Your task to perform on an android device: open app "Grab" (install if not already installed) and go to login screen Image 0: 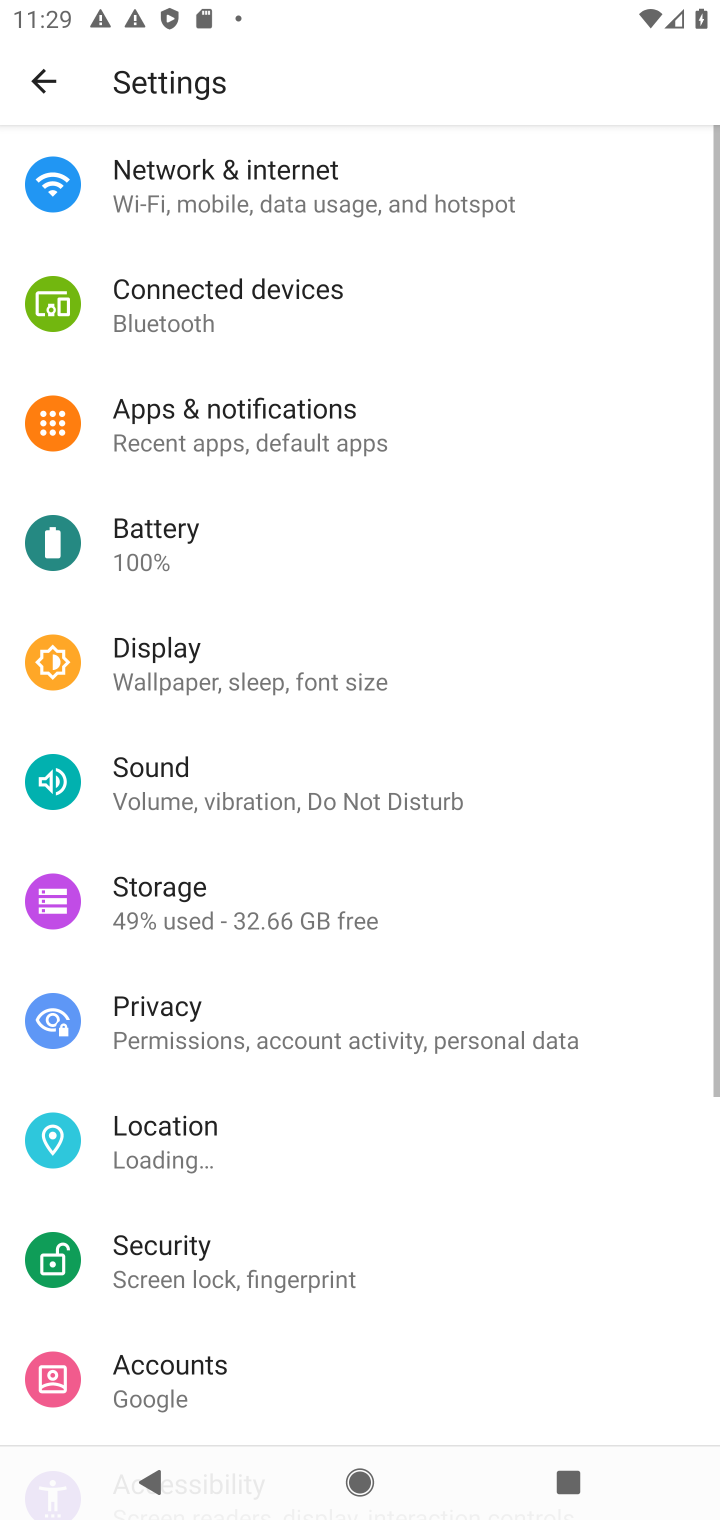
Step 0: press home button
Your task to perform on an android device: open app "Grab" (install if not already installed) and go to login screen Image 1: 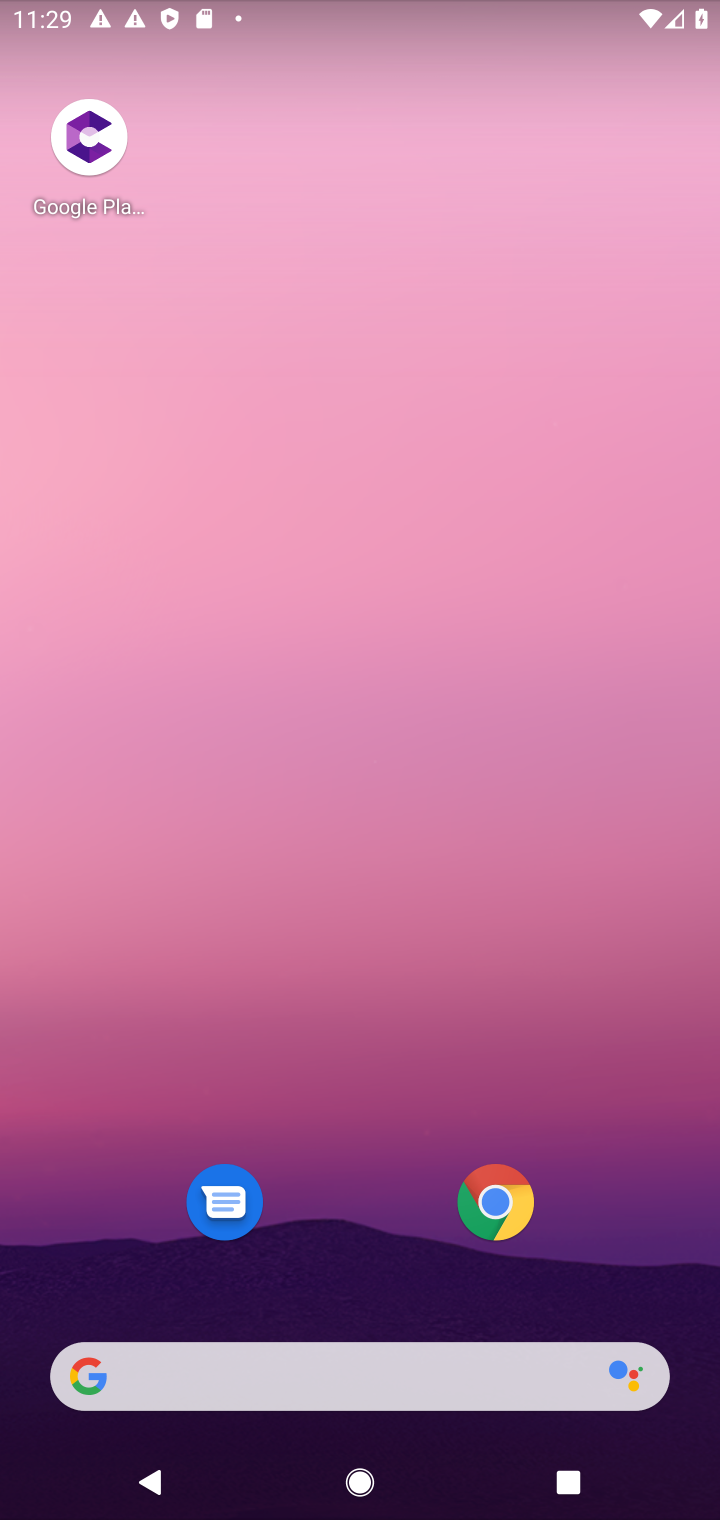
Step 1: drag from (349, 1206) to (199, 210)
Your task to perform on an android device: open app "Grab" (install if not already installed) and go to login screen Image 2: 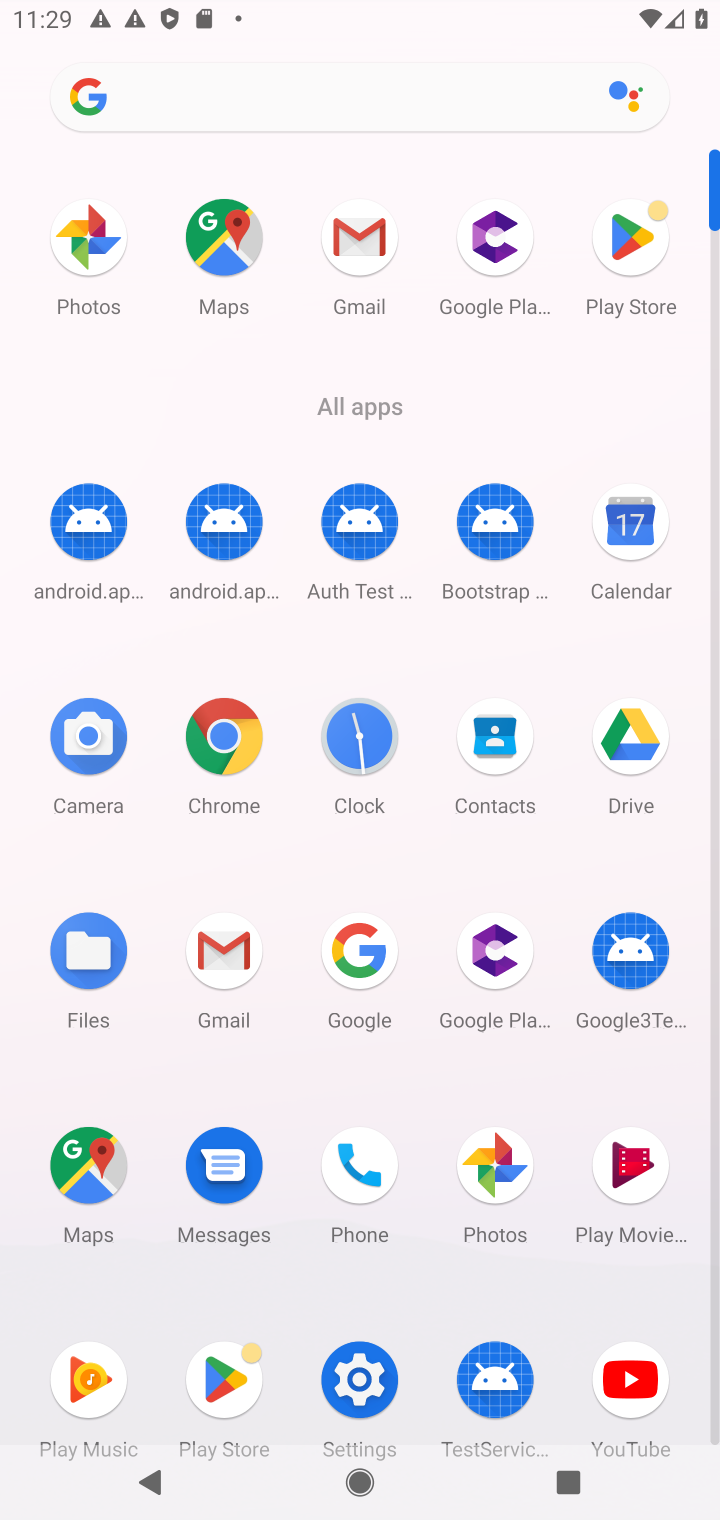
Step 2: click (651, 255)
Your task to perform on an android device: open app "Grab" (install if not already installed) and go to login screen Image 3: 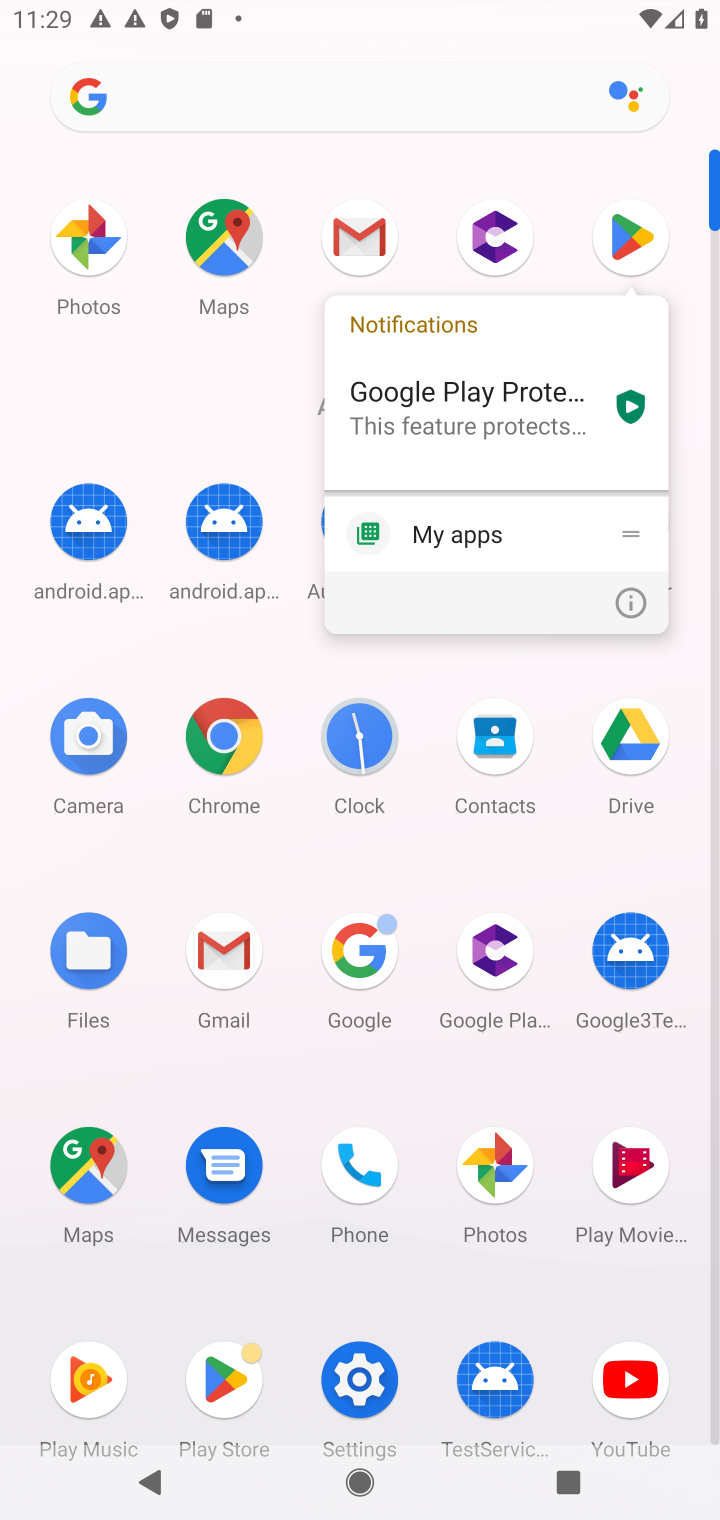
Step 3: click (620, 216)
Your task to perform on an android device: open app "Grab" (install if not already installed) and go to login screen Image 4: 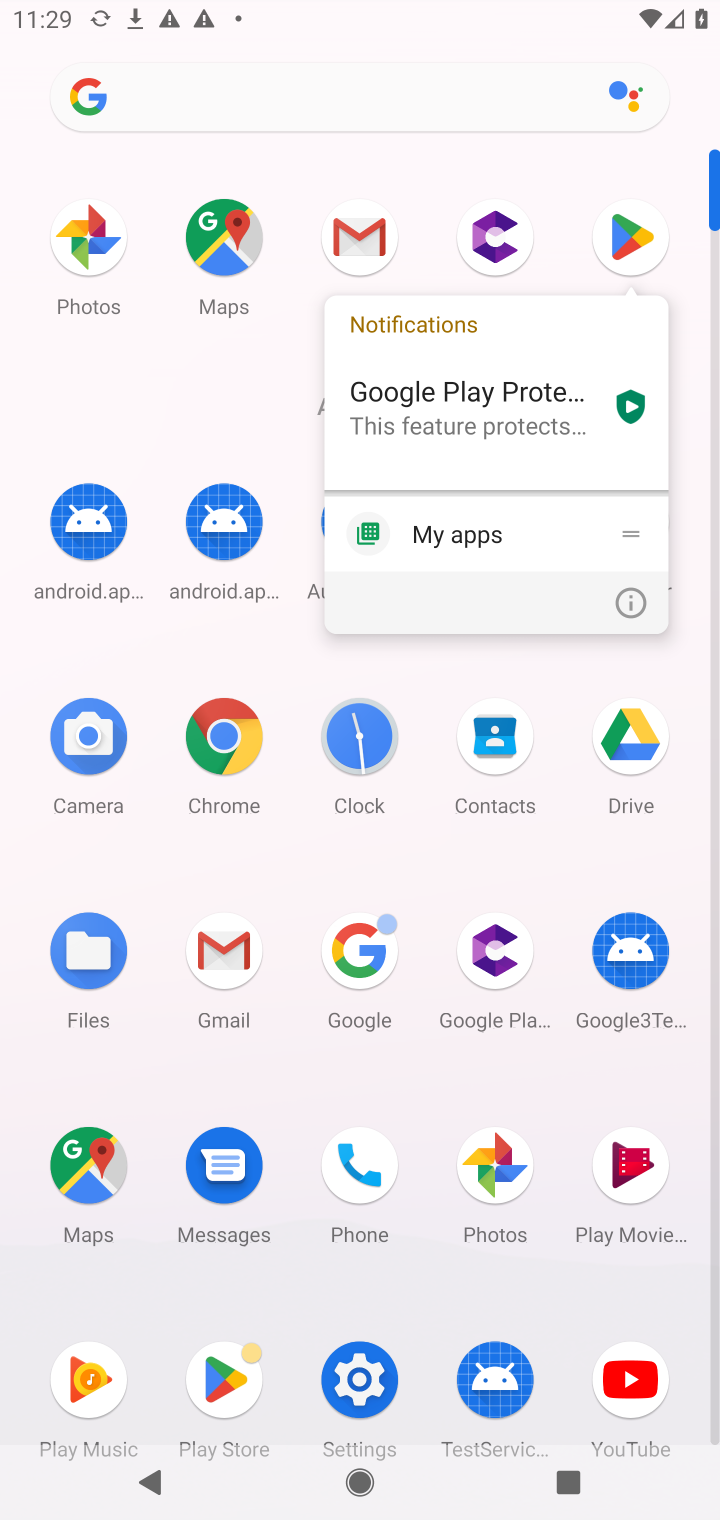
Step 4: click (618, 214)
Your task to perform on an android device: open app "Grab" (install if not already installed) and go to login screen Image 5: 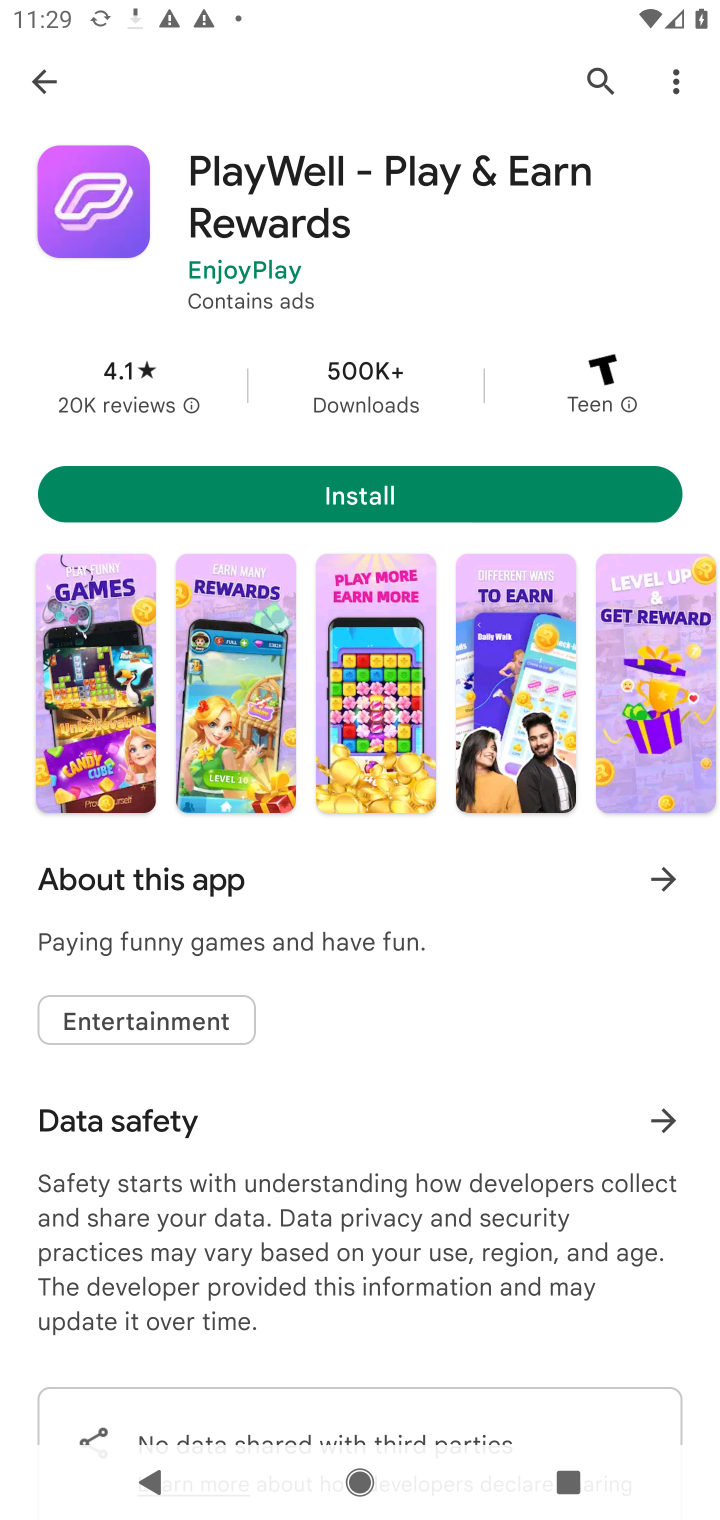
Step 5: click (62, 79)
Your task to perform on an android device: open app "Grab" (install if not already installed) and go to login screen Image 6: 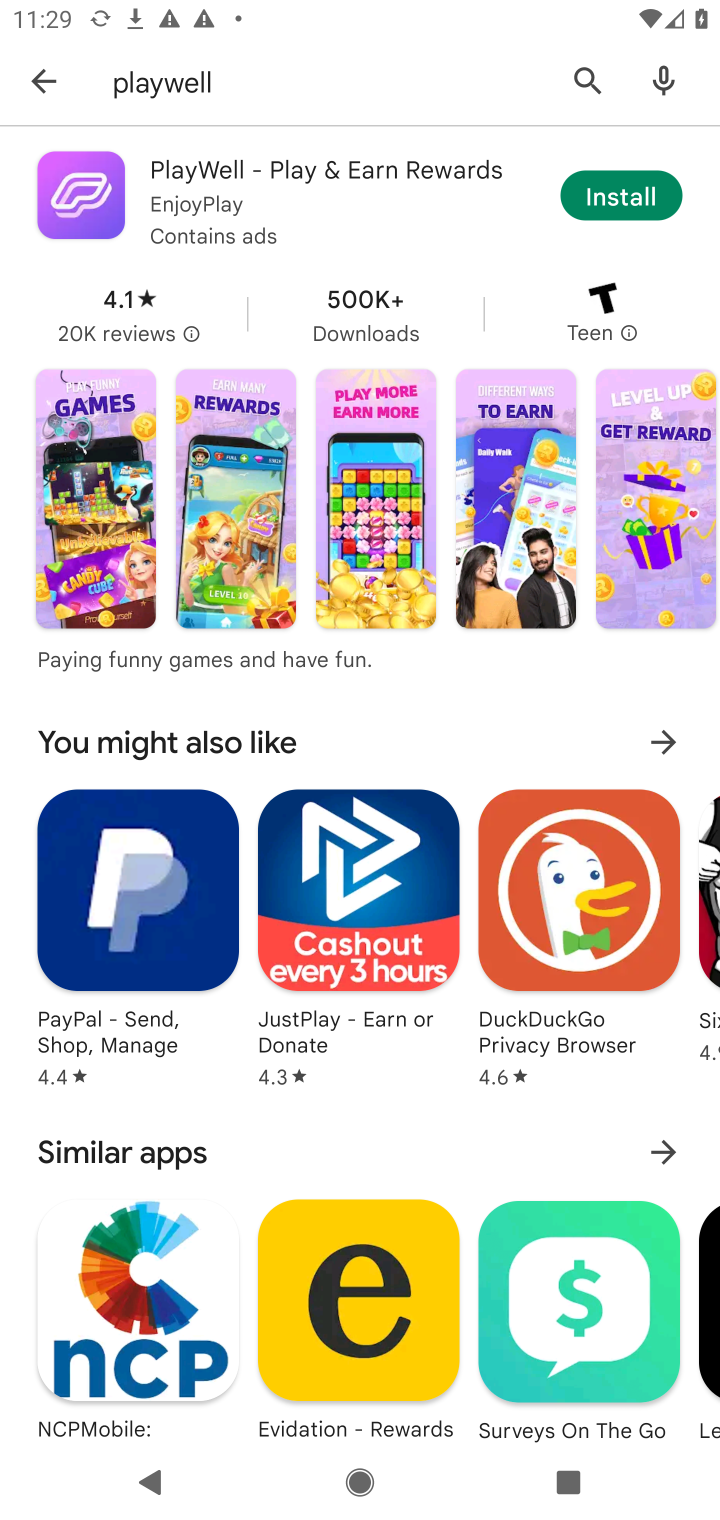
Step 6: click (578, 71)
Your task to perform on an android device: open app "Grab" (install if not already installed) and go to login screen Image 7: 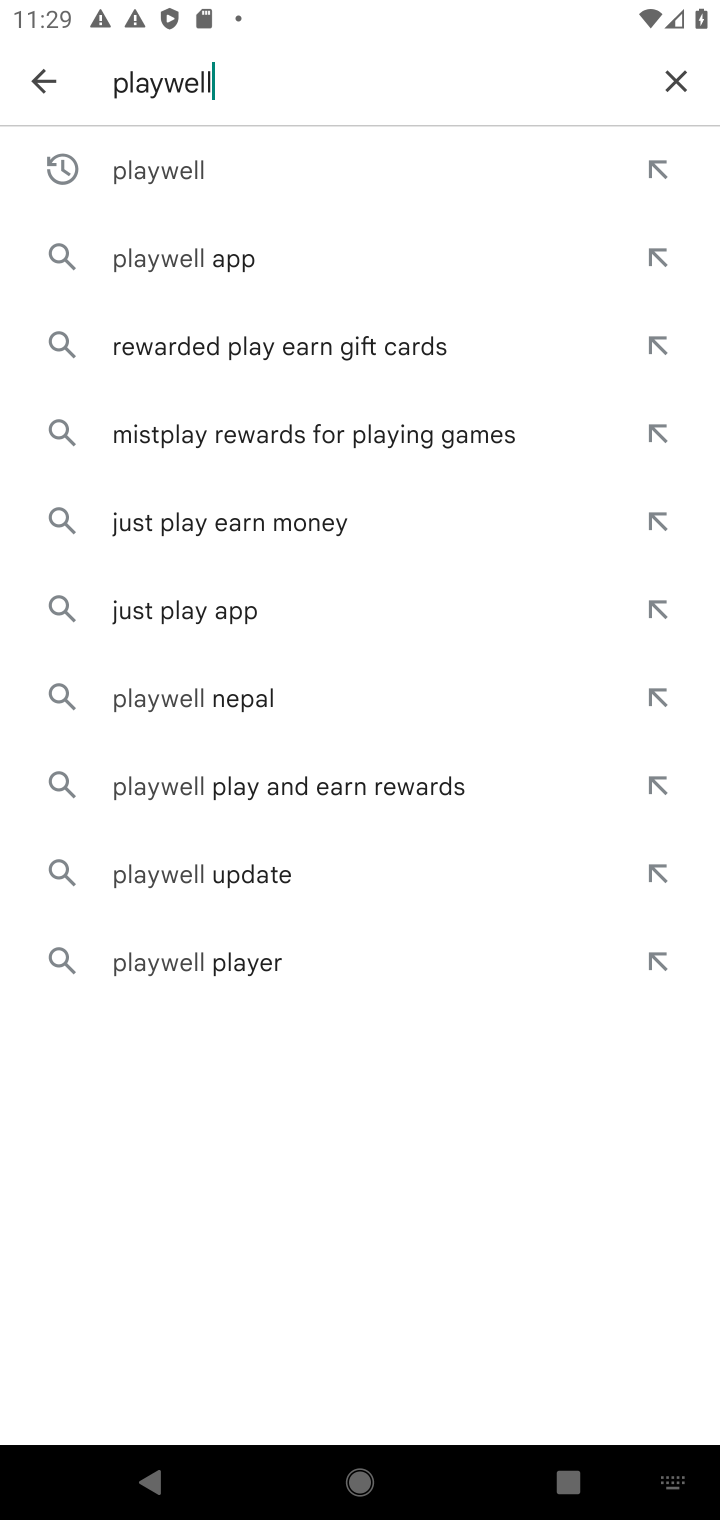
Step 7: click (670, 75)
Your task to perform on an android device: open app "Grab" (install if not already installed) and go to login screen Image 8: 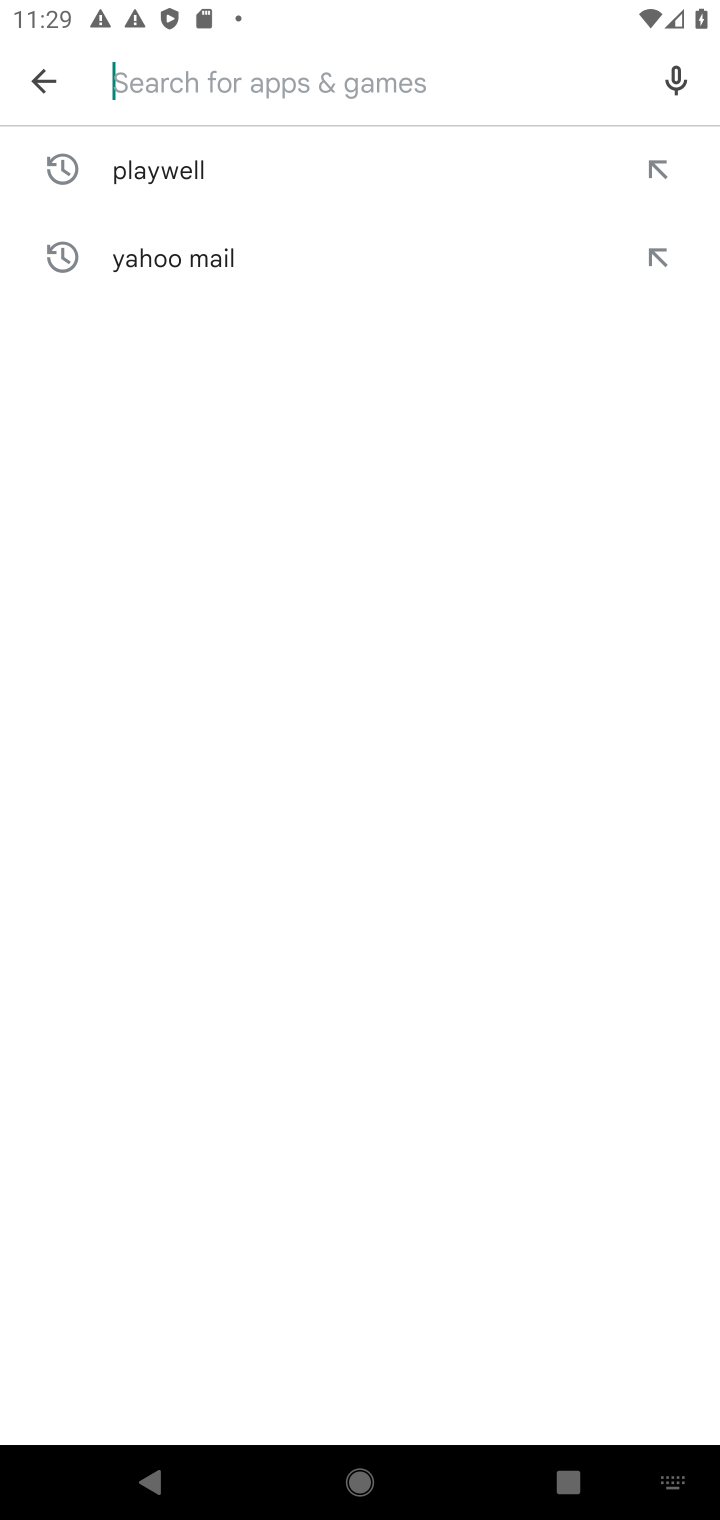
Step 8: type "Grab"
Your task to perform on an android device: open app "Grab" (install if not already installed) and go to login screen Image 9: 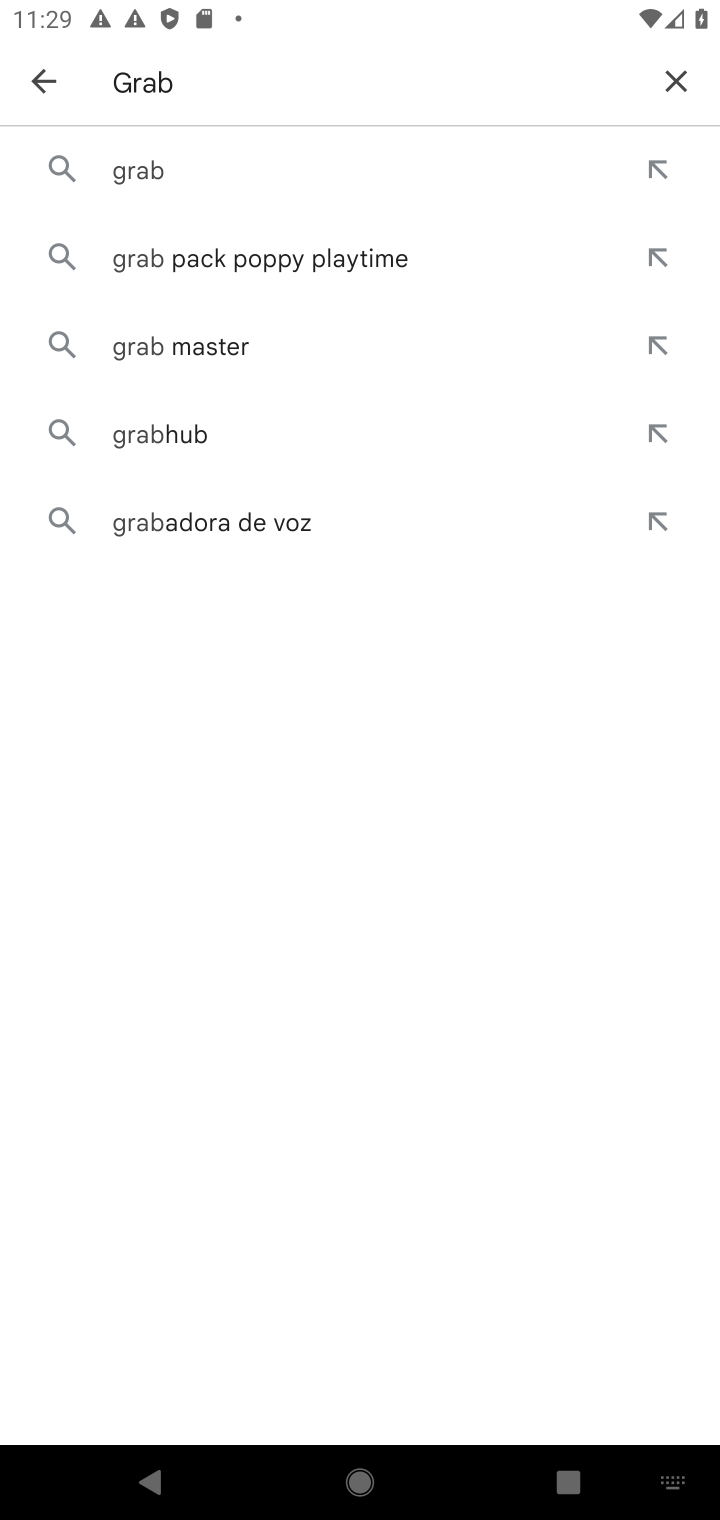
Step 9: click (155, 161)
Your task to perform on an android device: open app "Grab" (install if not already installed) and go to login screen Image 10: 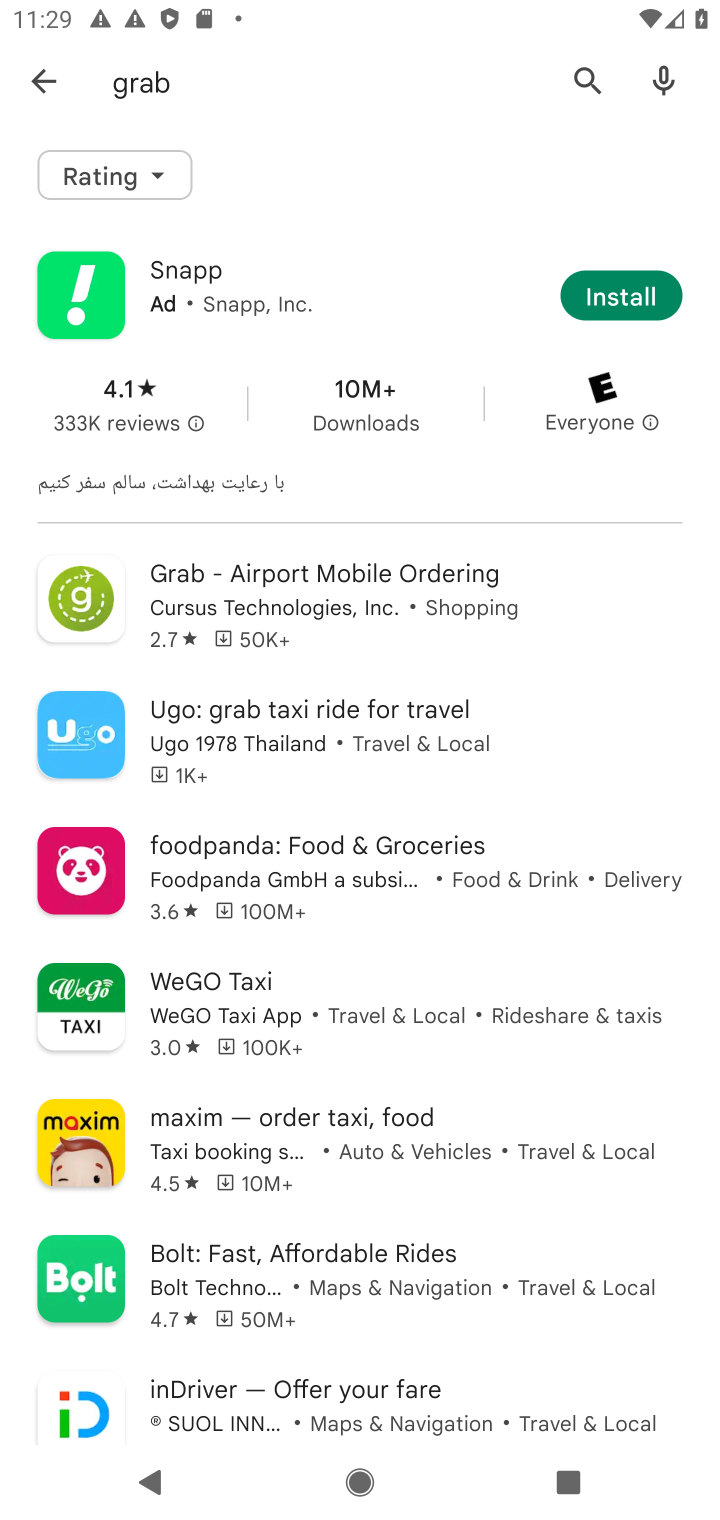
Step 10: click (280, 598)
Your task to perform on an android device: open app "Grab" (install if not already installed) and go to login screen Image 11: 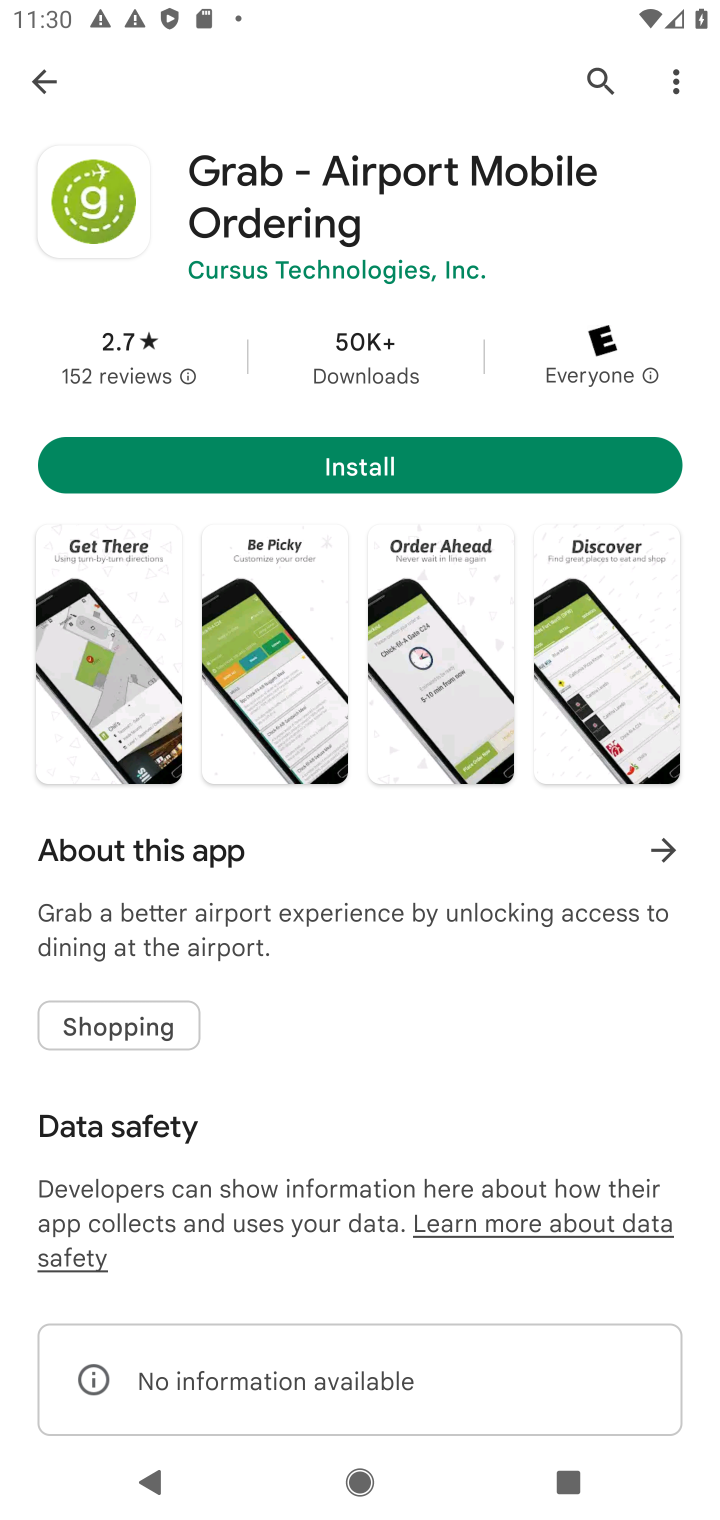
Step 11: click (347, 466)
Your task to perform on an android device: open app "Grab" (install if not already installed) and go to login screen Image 12: 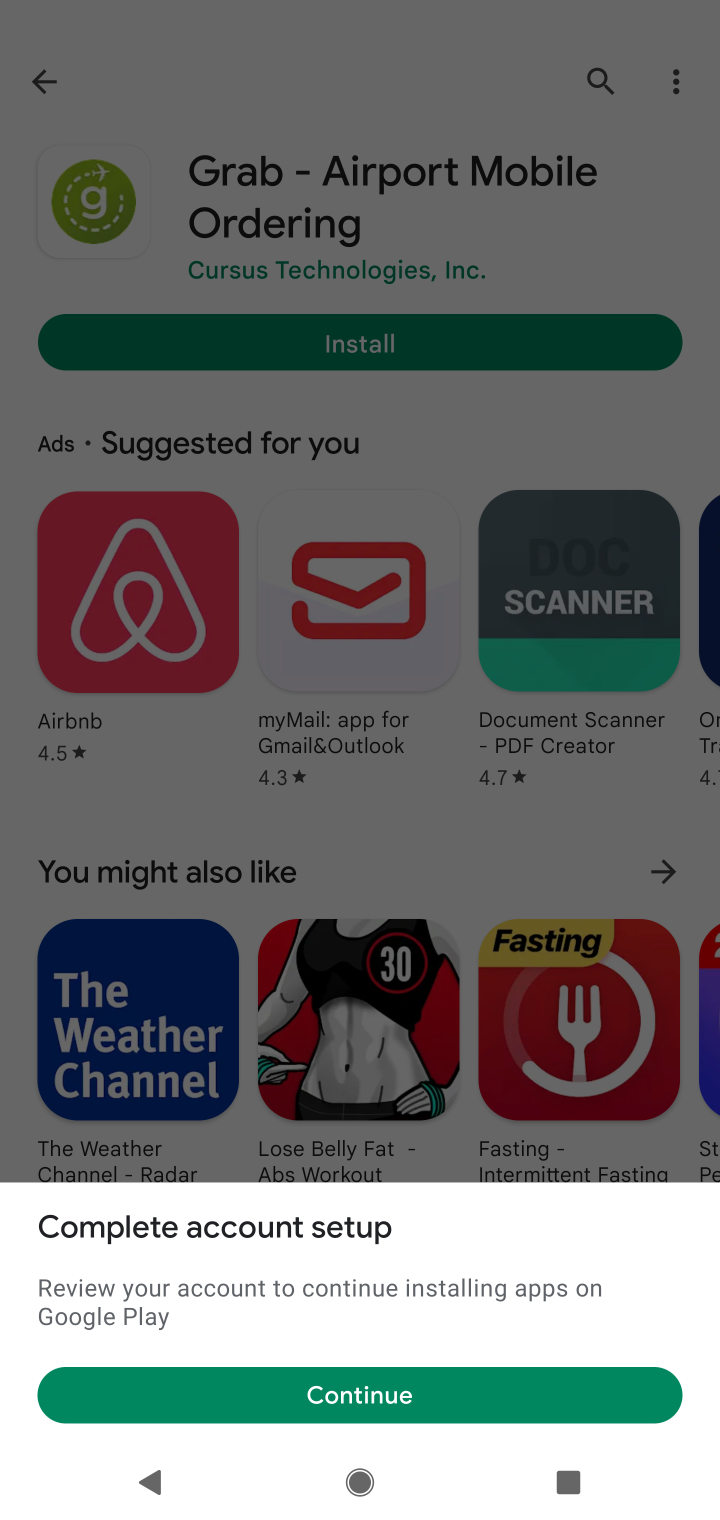
Step 12: click (329, 1377)
Your task to perform on an android device: open app "Grab" (install if not already installed) and go to login screen Image 13: 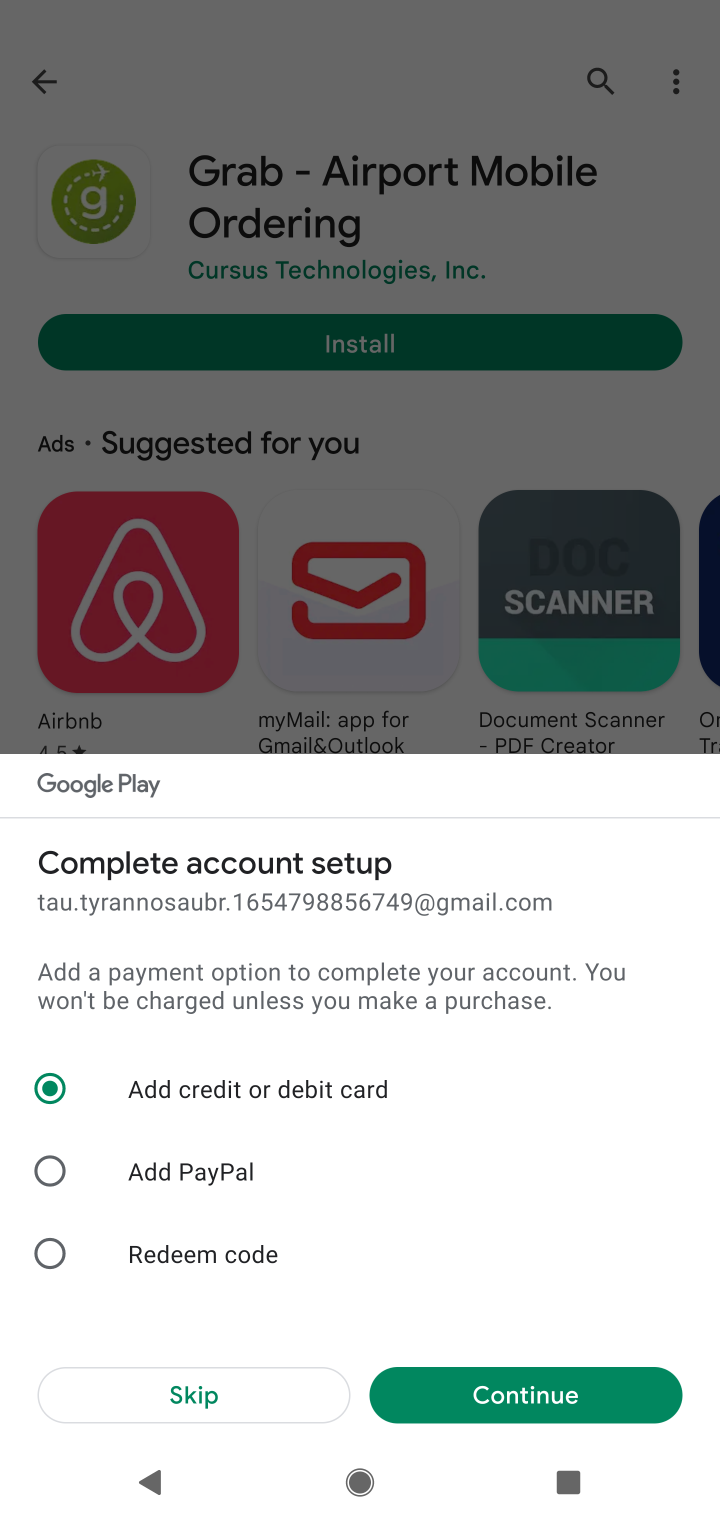
Step 13: click (121, 1405)
Your task to perform on an android device: open app "Grab" (install if not already installed) and go to login screen Image 14: 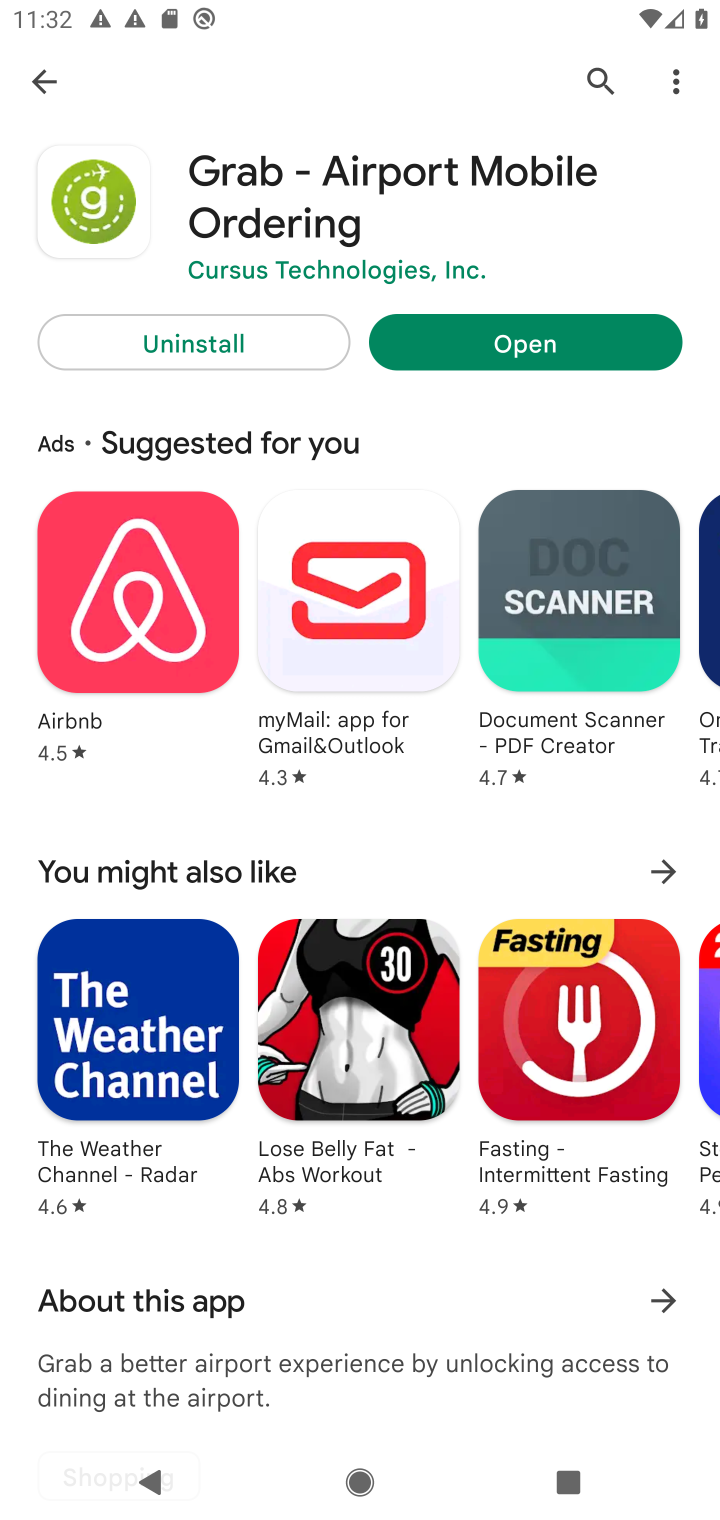
Step 14: click (616, 317)
Your task to perform on an android device: open app "Grab" (install if not already installed) and go to login screen Image 15: 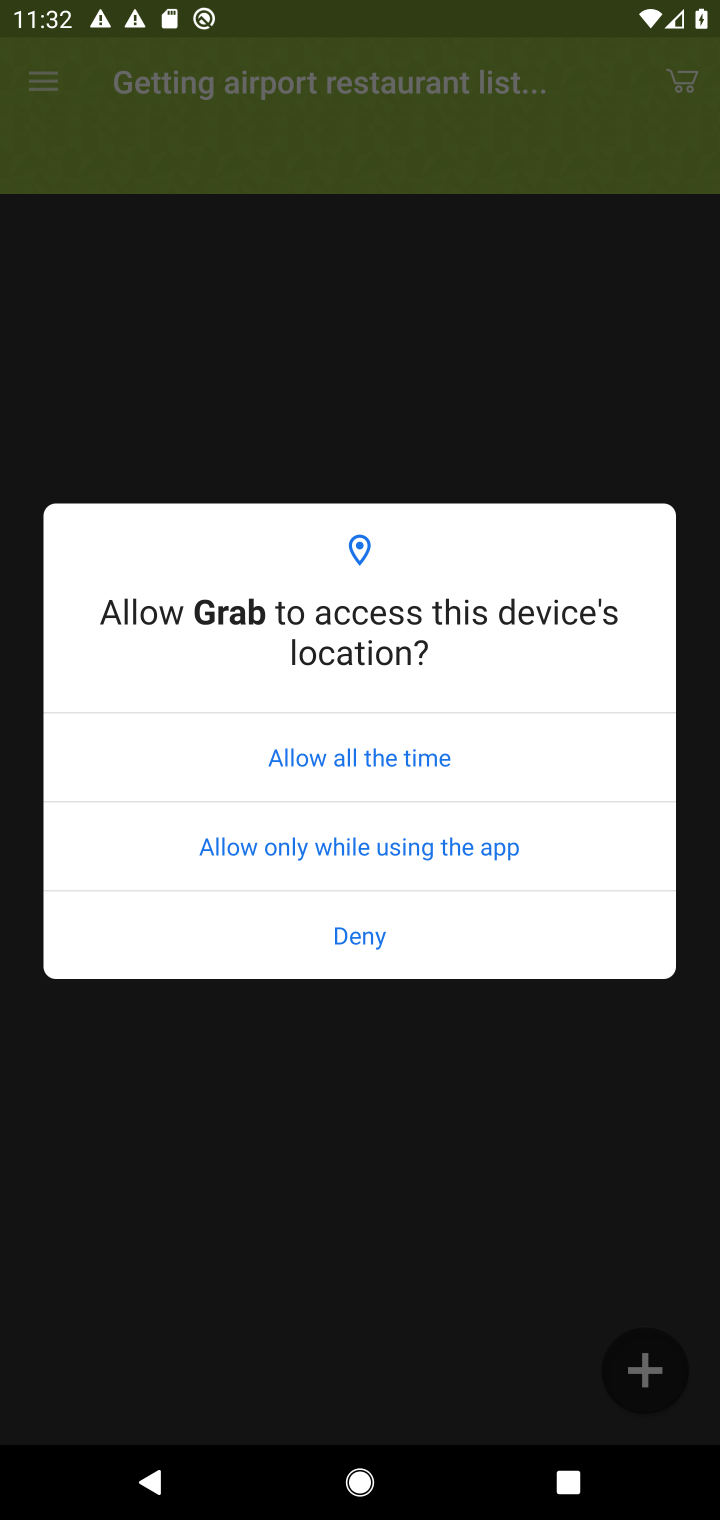
Step 15: click (334, 752)
Your task to perform on an android device: open app "Grab" (install if not already installed) and go to login screen Image 16: 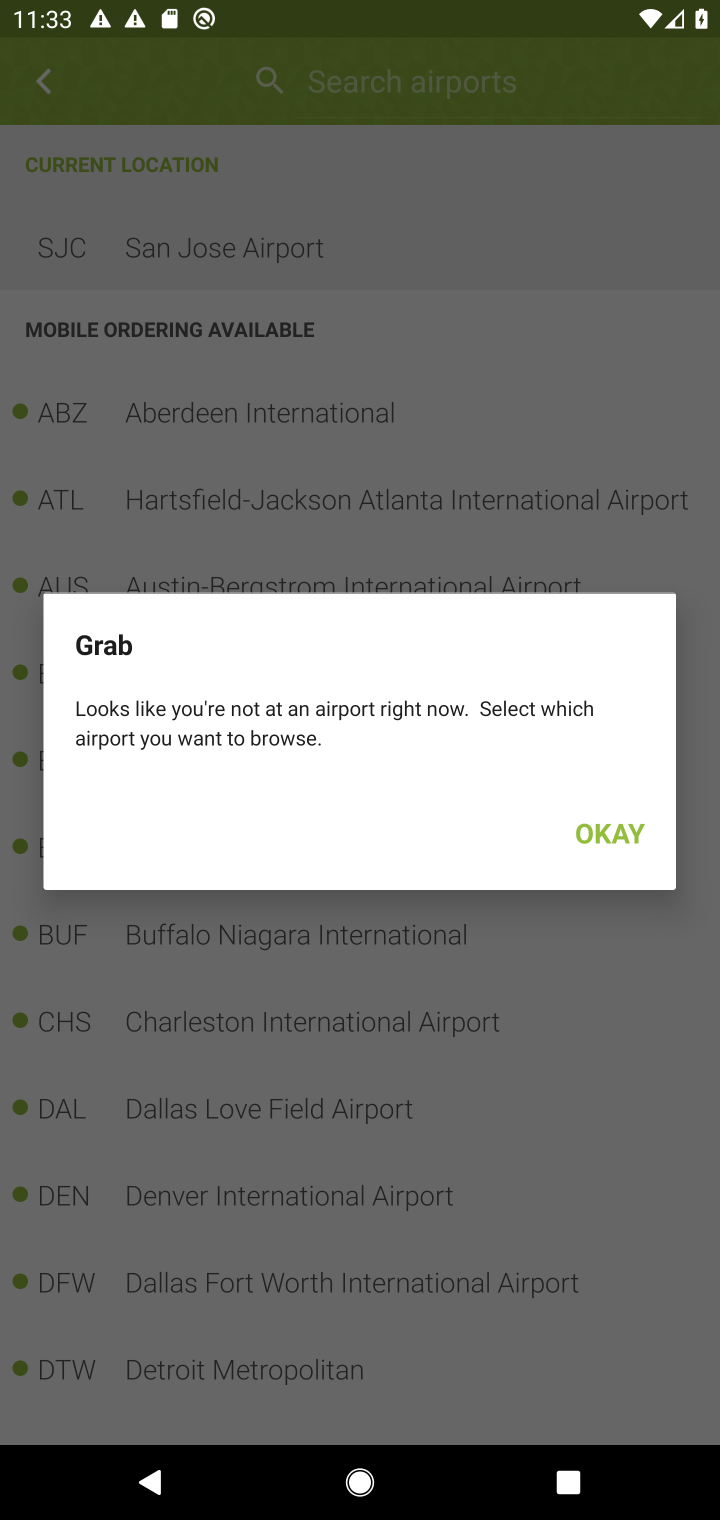
Step 16: click (627, 836)
Your task to perform on an android device: open app "Grab" (install if not already installed) and go to login screen Image 17: 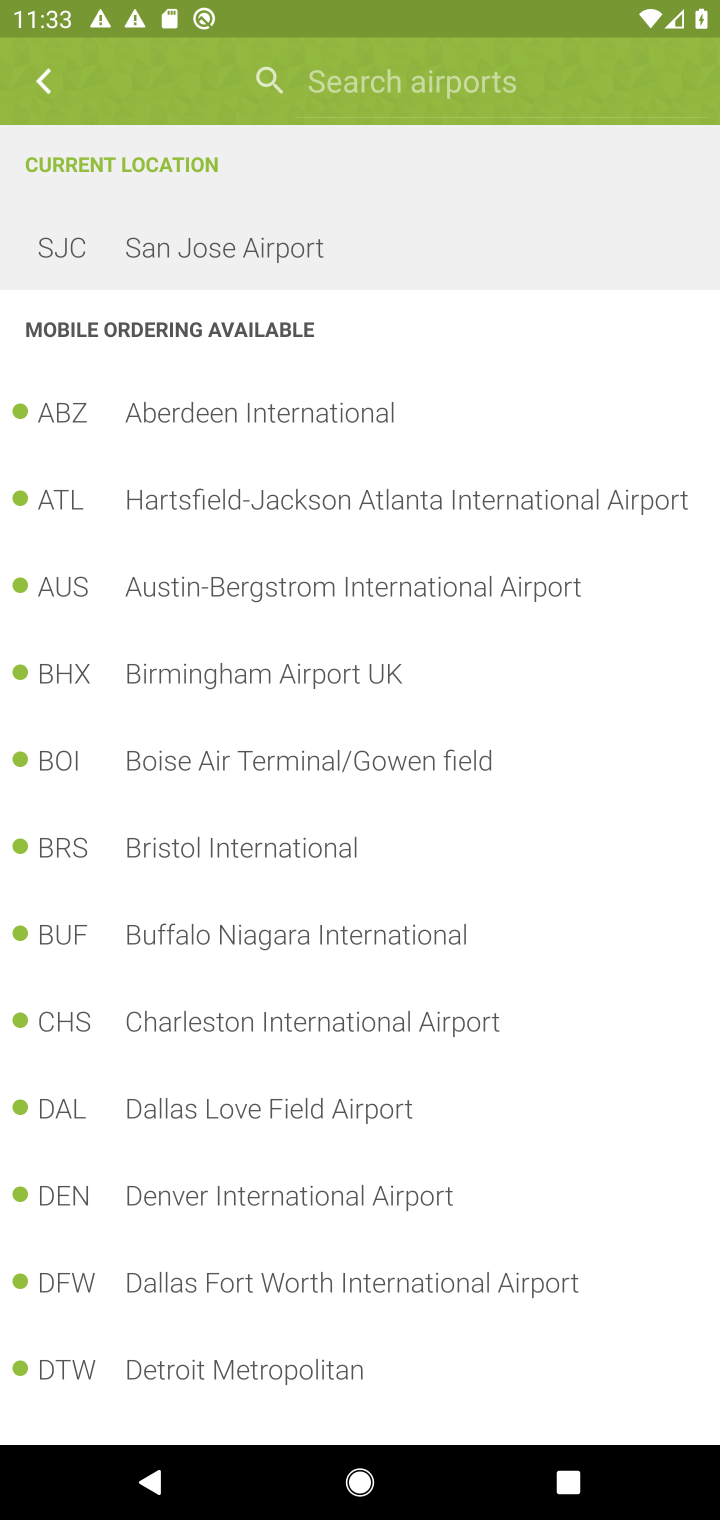
Step 17: click (28, 98)
Your task to perform on an android device: open app "Grab" (install if not already installed) and go to login screen Image 18: 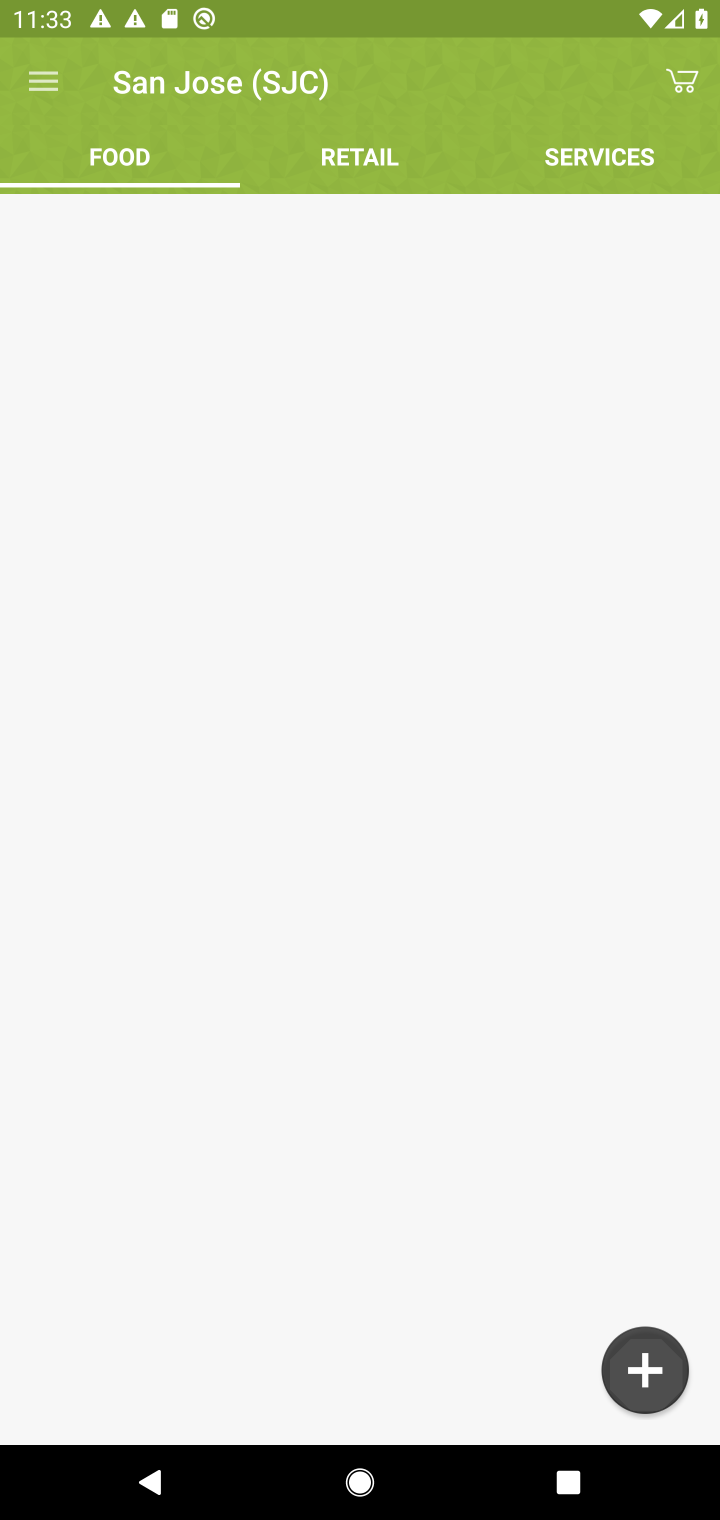
Step 18: click (53, 79)
Your task to perform on an android device: open app "Grab" (install if not already installed) and go to login screen Image 19: 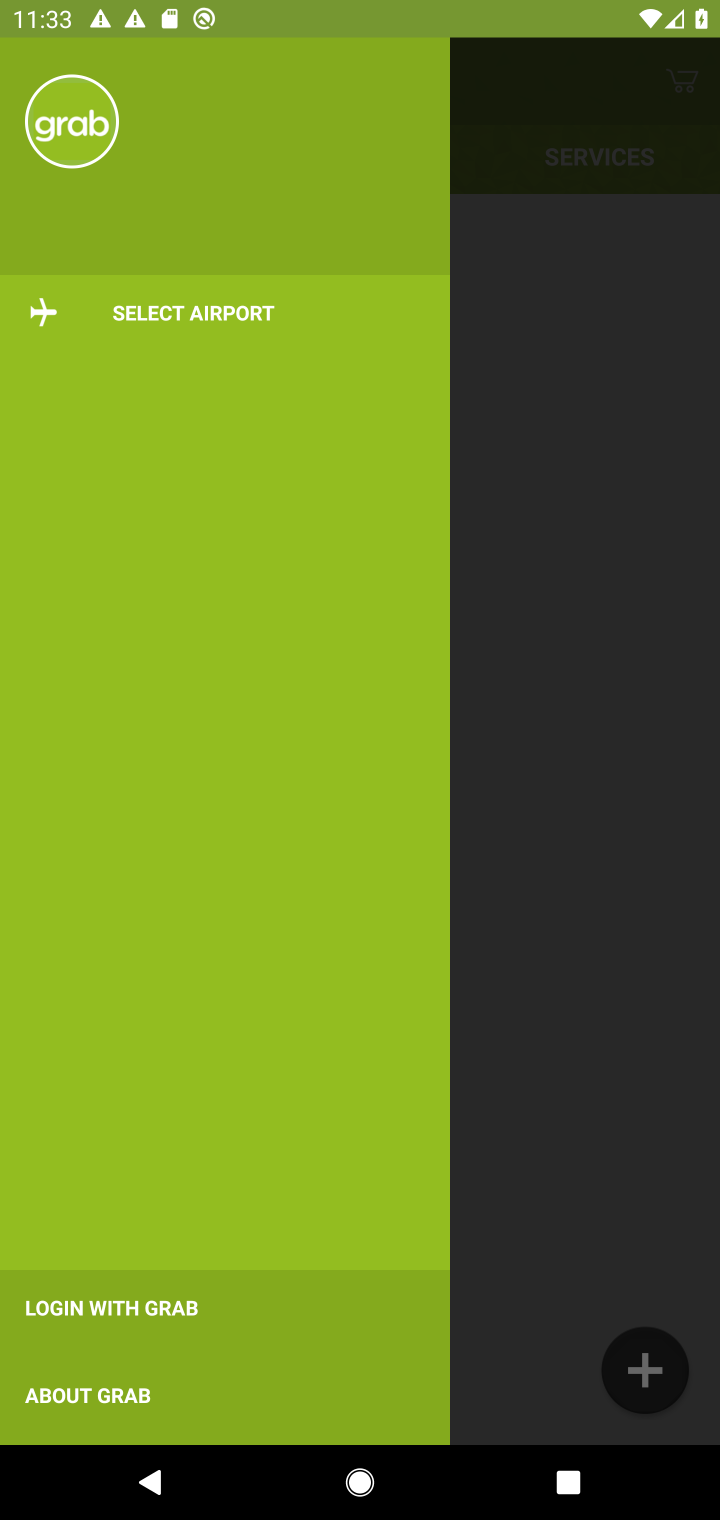
Step 19: click (96, 1324)
Your task to perform on an android device: open app "Grab" (install if not already installed) and go to login screen Image 20: 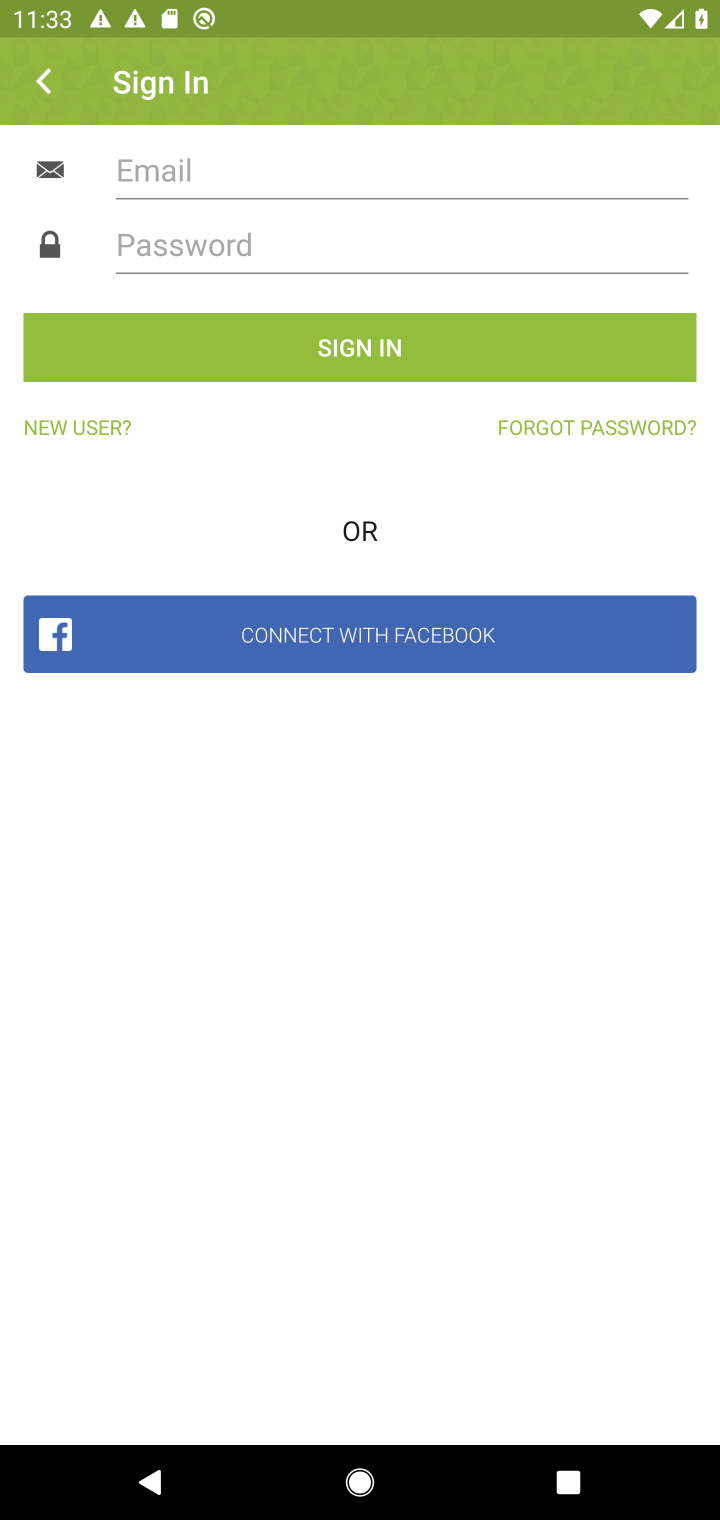
Step 20: task complete